Your task to perform on an android device: What time is it in Sydney? Image 0: 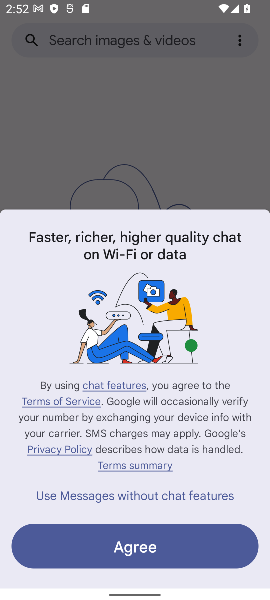
Step 0: press home button
Your task to perform on an android device: What time is it in Sydney? Image 1: 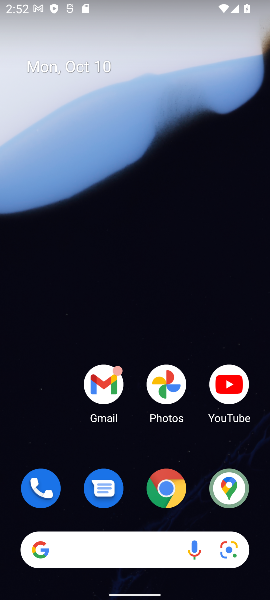
Step 1: click (143, 556)
Your task to perform on an android device: What time is it in Sydney? Image 2: 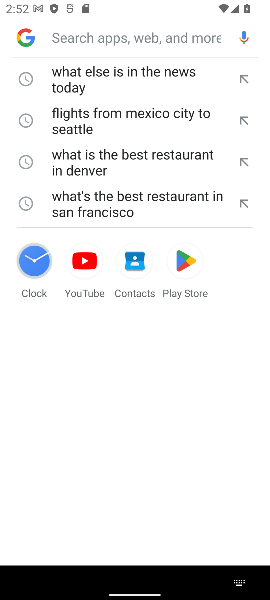
Step 2: click (79, 35)
Your task to perform on an android device: What time is it in Sydney? Image 3: 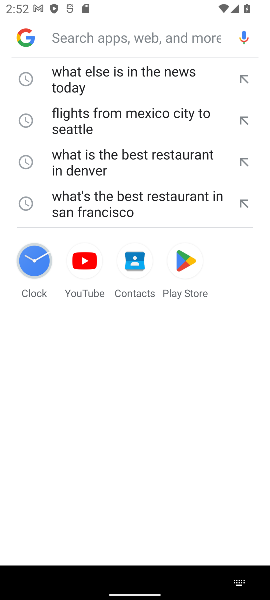
Step 3: type "What time is it in Sydney"
Your task to perform on an android device: What time is it in Sydney? Image 4: 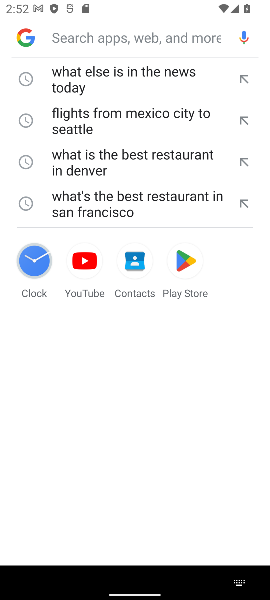
Step 4: click (150, 461)
Your task to perform on an android device: What time is it in Sydney? Image 5: 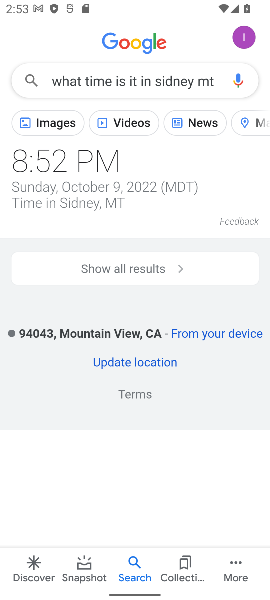
Step 5: task complete